Your task to perform on an android device: turn on javascript in the chrome app Image 0: 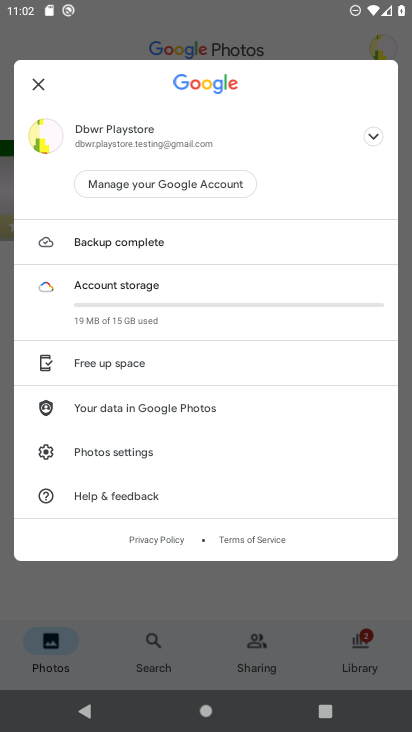
Step 0: press home button
Your task to perform on an android device: turn on javascript in the chrome app Image 1: 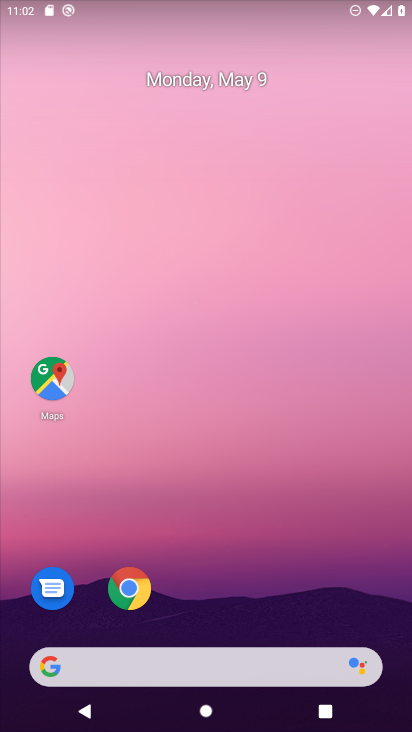
Step 1: click (133, 606)
Your task to perform on an android device: turn on javascript in the chrome app Image 2: 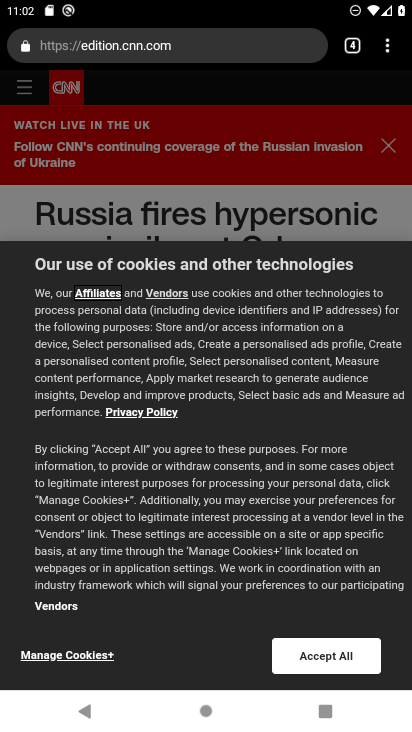
Step 2: click (385, 45)
Your task to perform on an android device: turn on javascript in the chrome app Image 3: 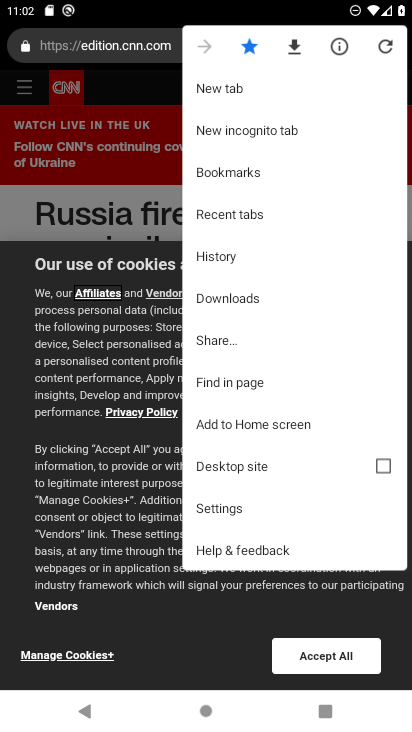
Step 3: click (240, 495)
Your task to perform on an android device: turn on javascript in the chrome app Image 4: 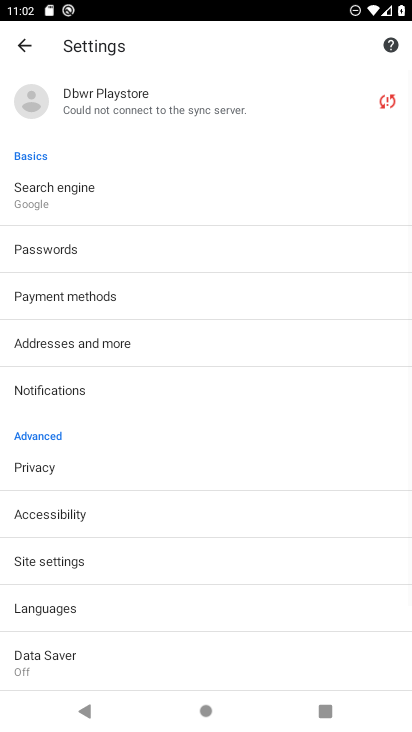
Step 4: click (162, 574)
Your task to perform on an android device: turn on javascript in the chrome app Image 5: 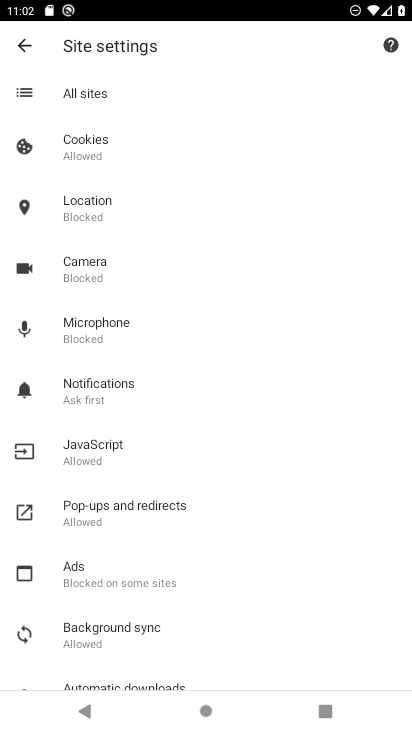
Step 5: click (182, 458)
Your task to perform on an android device: turn on javascript in the chrome app Image 6: 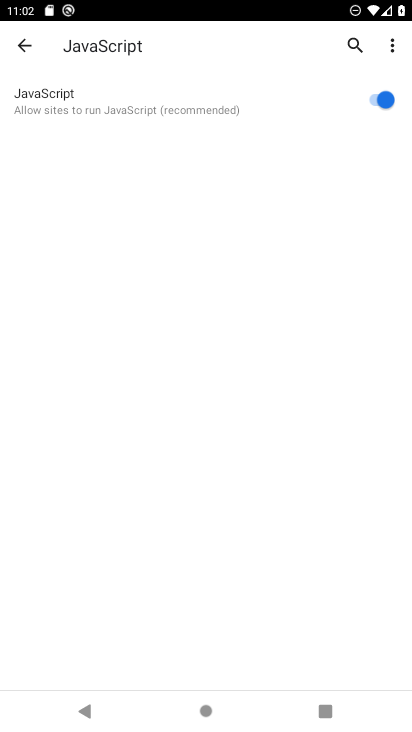
Step 6: task complete